Your task to perform on an android device: Open maps Image 0: 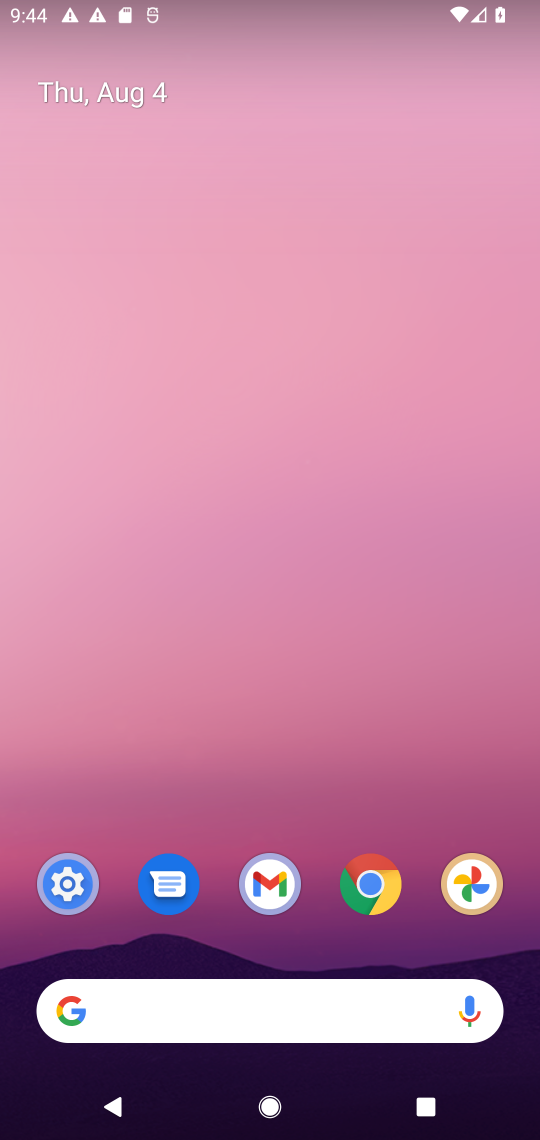
Step 0: press back button
Your task to perform on an android device: Open maps Image 1: 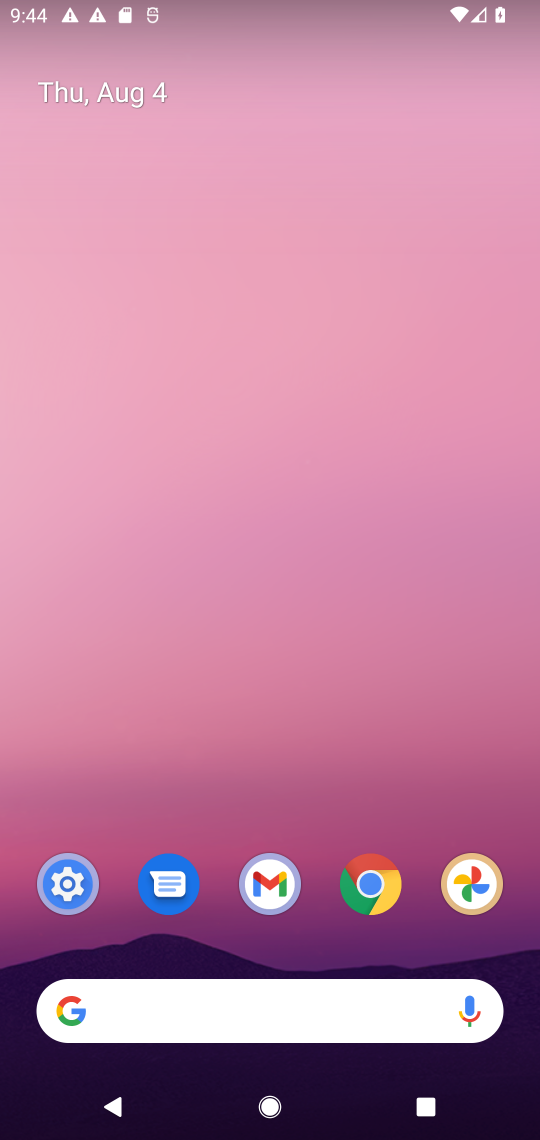
Step 1: press back button
Your task to perform on an android device: Open maps Image 2: 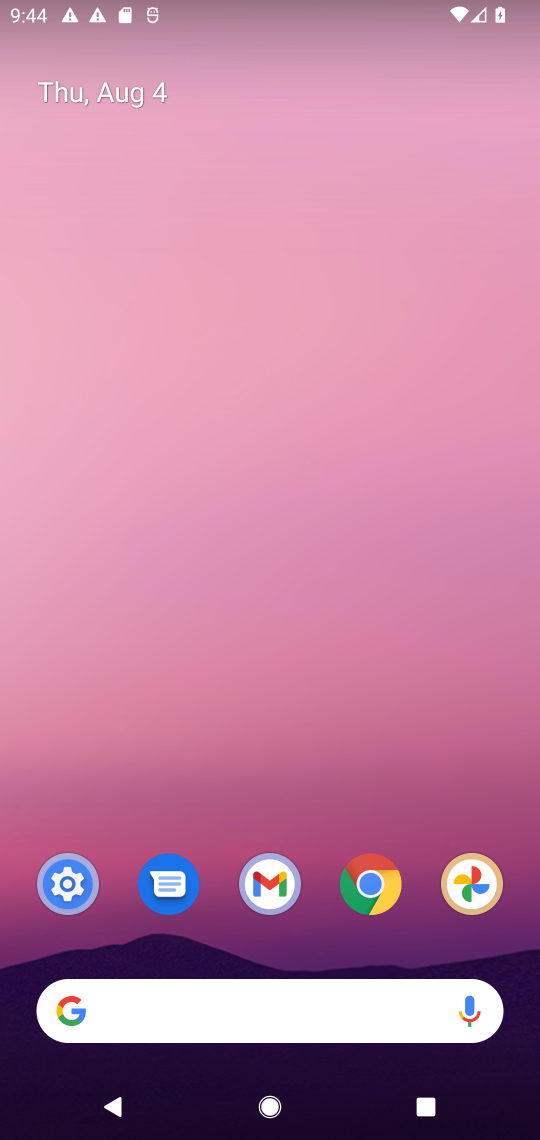
Step 2: press back button
Your task to perform on an android device: Open maps Image 3: 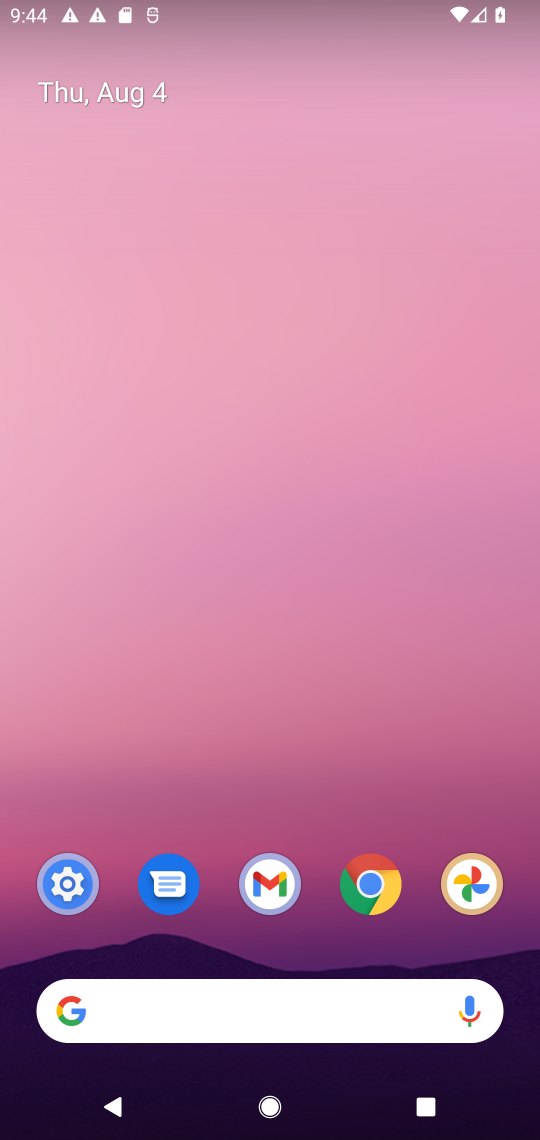
Step 3: drag from (238, 999) to (154, 209)
Your task to perform on an android device: Open maps Image 4: 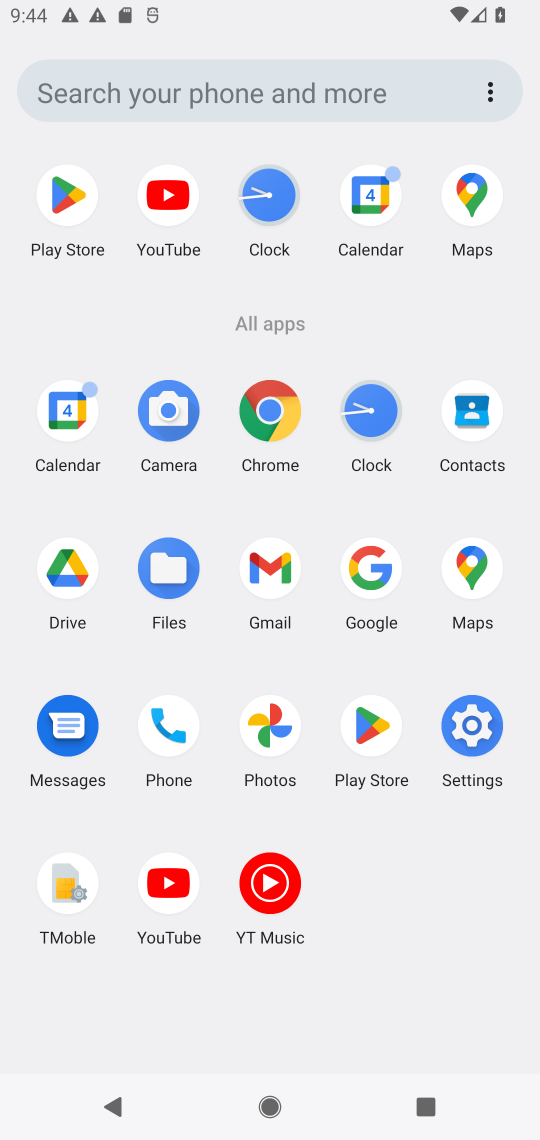
Step 4: click (462, 571)
Your task to perform on an android device: Open maps Image 5: 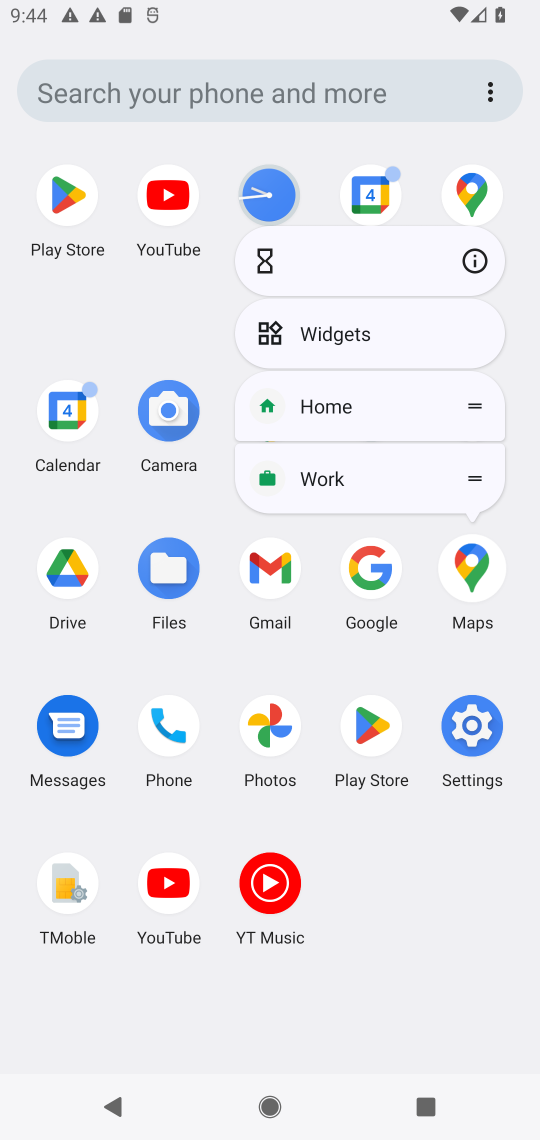
Step 5: click (462, 571)
Your task to perform on an android device: Open maps Image 6: 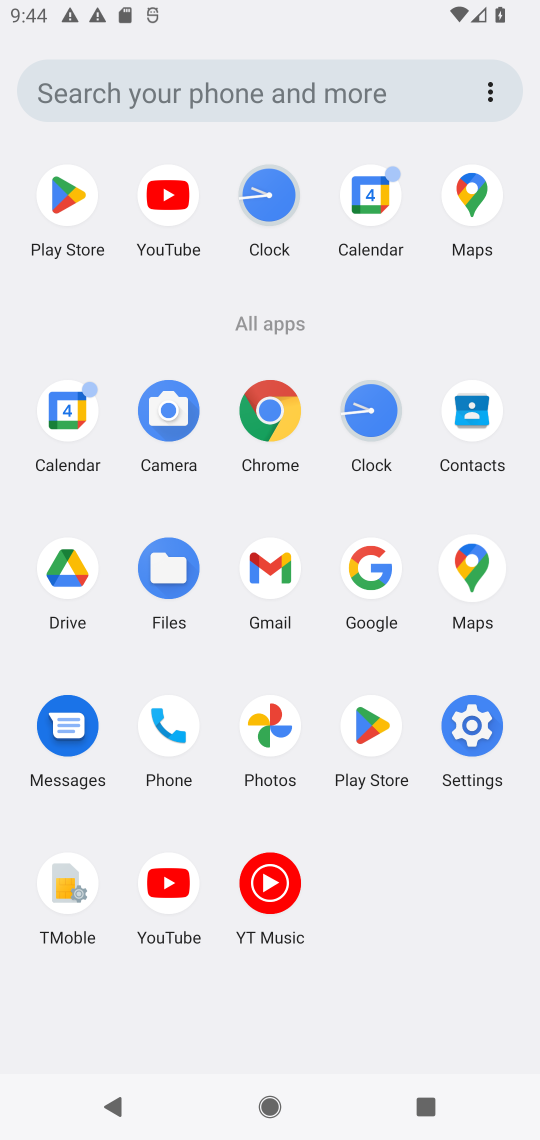
Step 6: click (462, 571)
Your task to perform on an android device: Open maps Image 7: 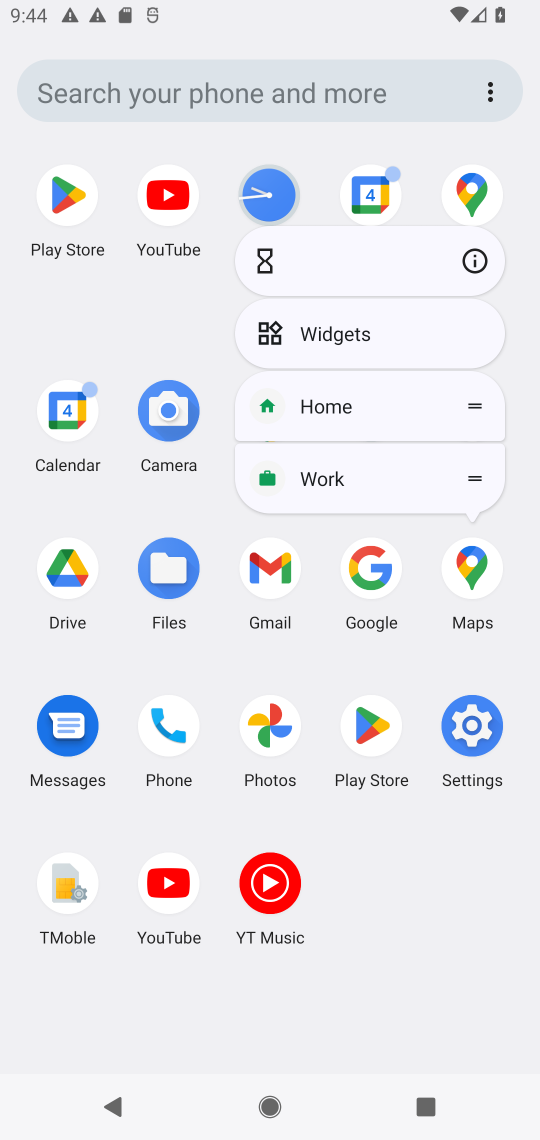
Step 7: click (475, 553)
Your task to perform on an android device: Open maps Image 8: 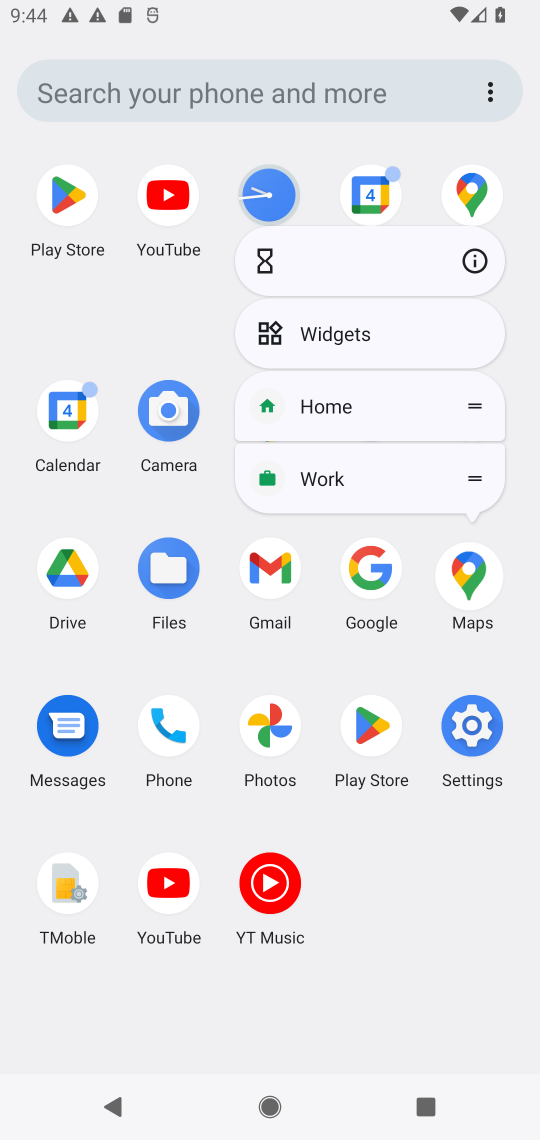
Step 8: click (473, 564)
Your task to perform on an android device: Open maps Image 9: 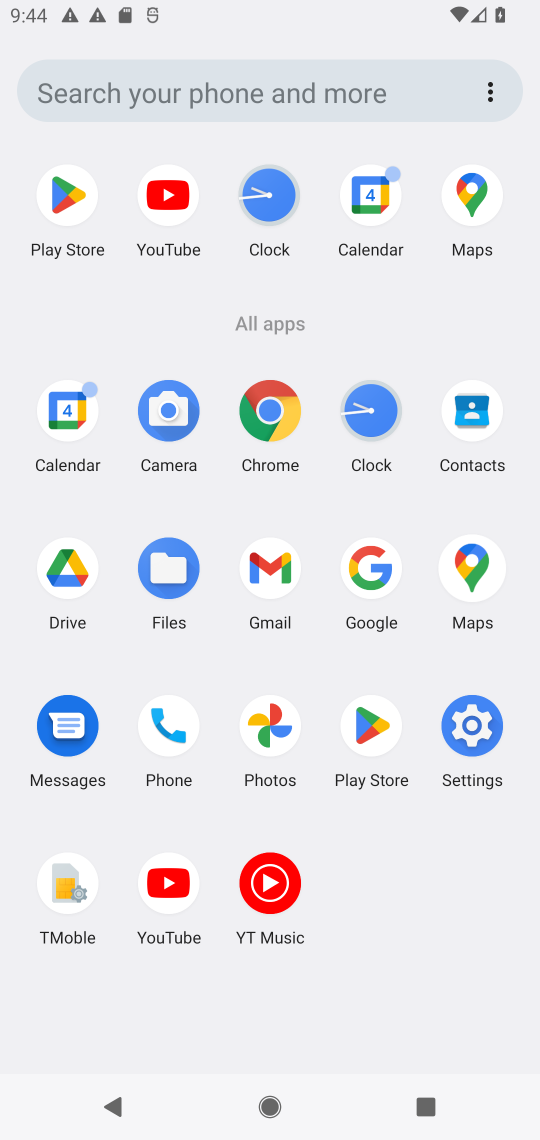
Step 9: click (473, 564)
Your task to perform on an android device: Open maps Image 10: 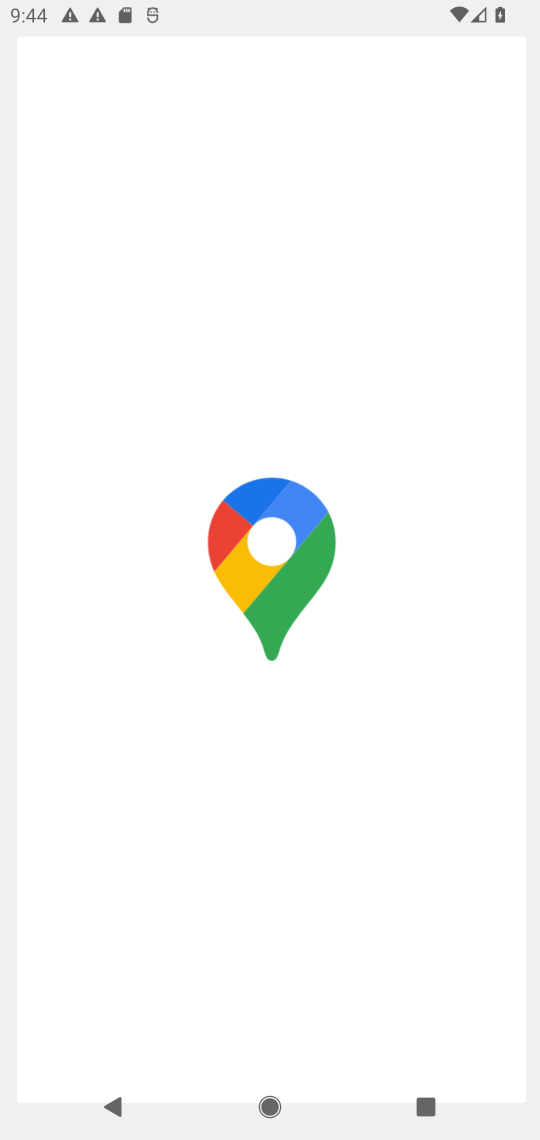
Step 10: click (472, 567)
Your task to perform on an android device: Open maps Image 11: 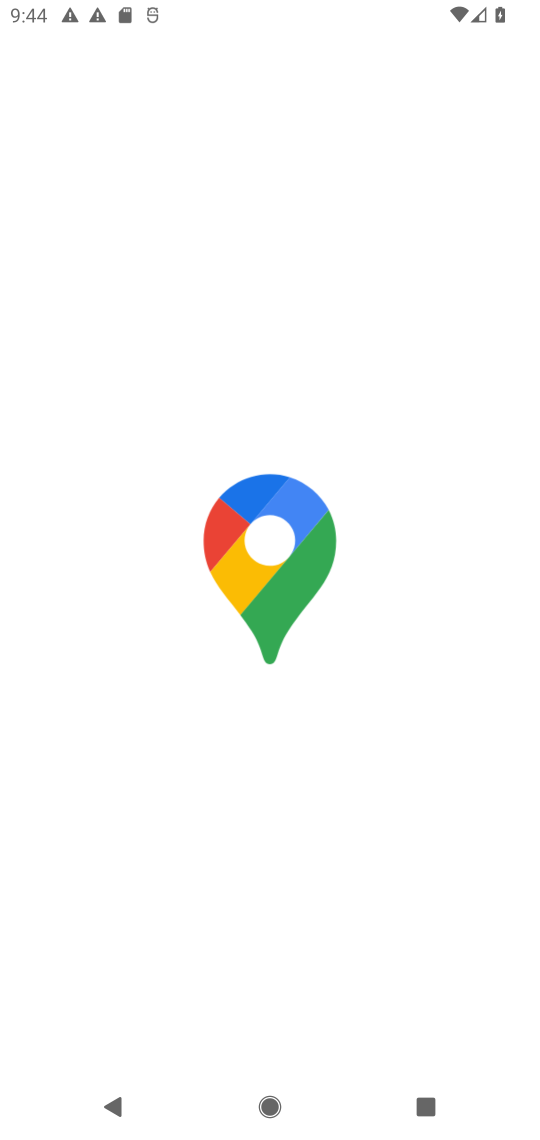
Step 11: click (470, 570)
Your task to perform on an android device: Open maps Image 12: 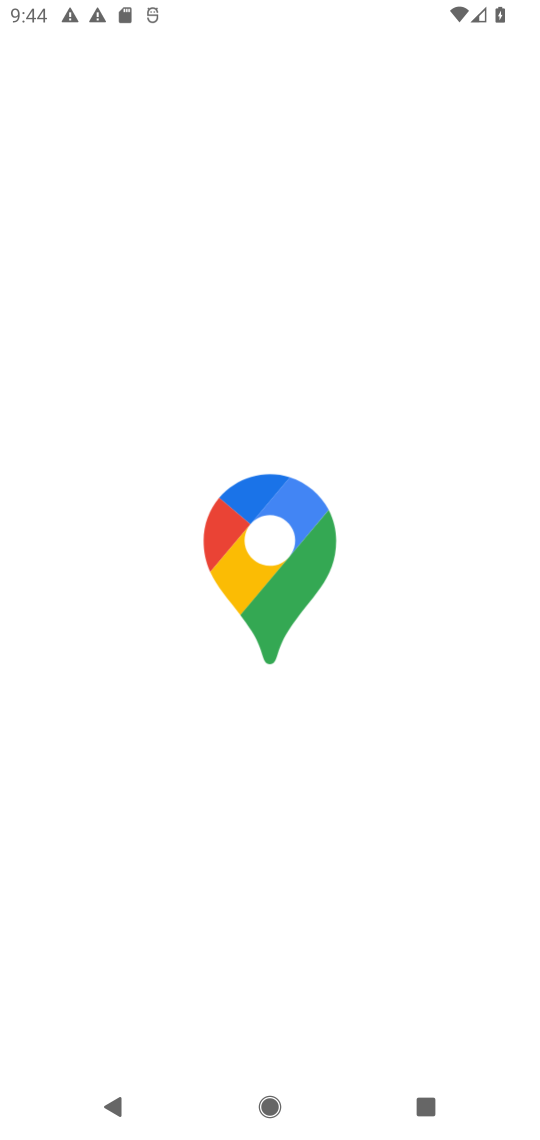
Step 12: click (262, 530)
Your task to perform on an android device: Open maps Image 13: 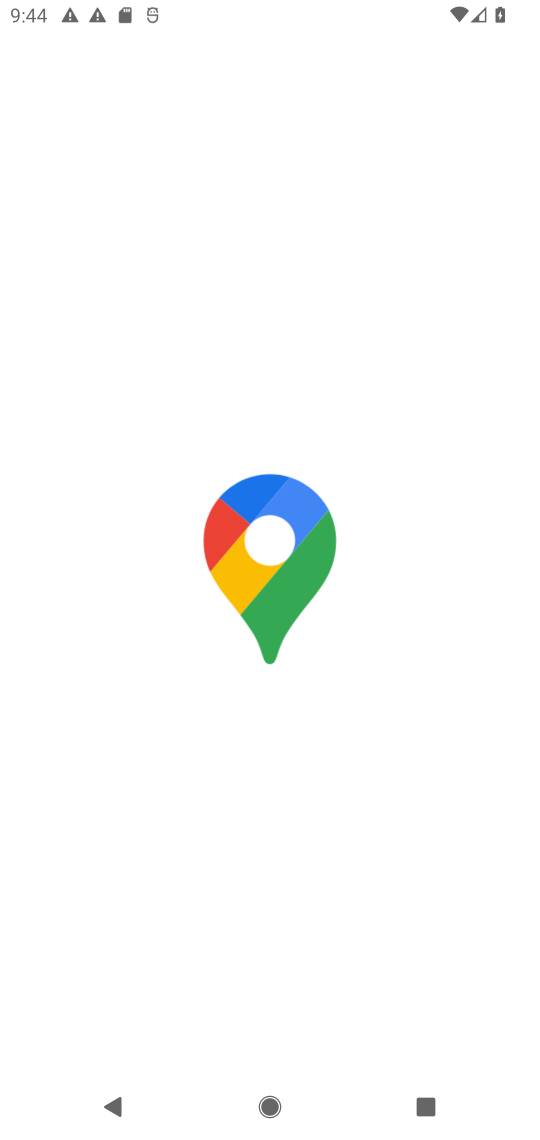
Step 13: task complete